Your task to perform on an android device: set the stopwatch Image 0: 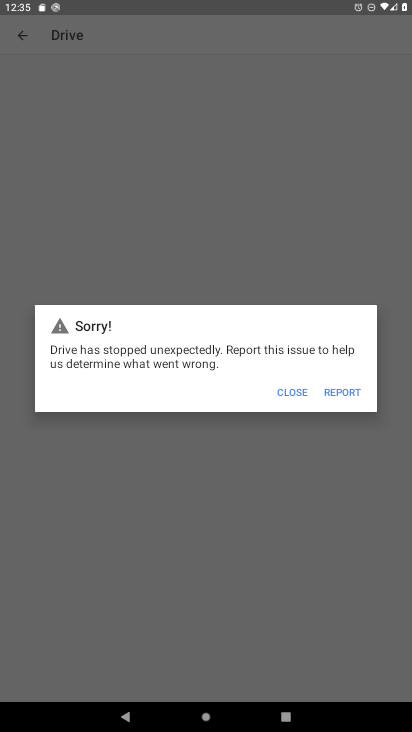
Step 0: press home button
Your task to perform on an android device: set the stopwatch Image 1: 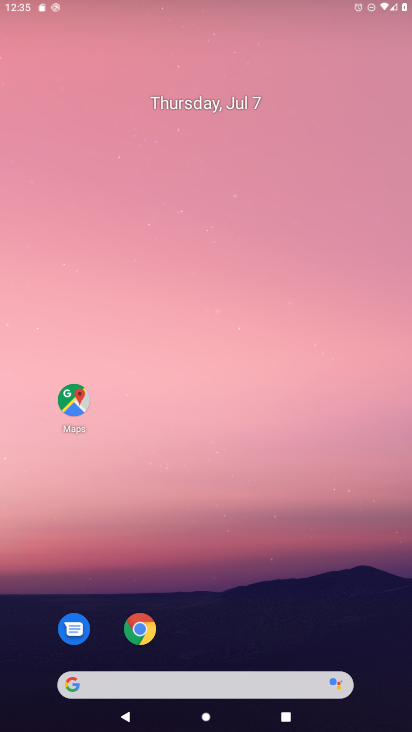
Step 1: drag from (205, 638) to (218, 53)
Your task to perform on an android device: set the stopwatch Image 2: 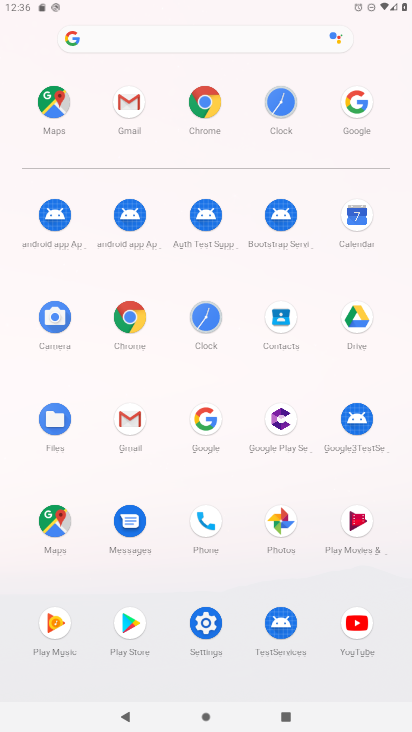
Step 2: click (295, 107)
Your task to perform on an android device: set the stopwatch Image 3: 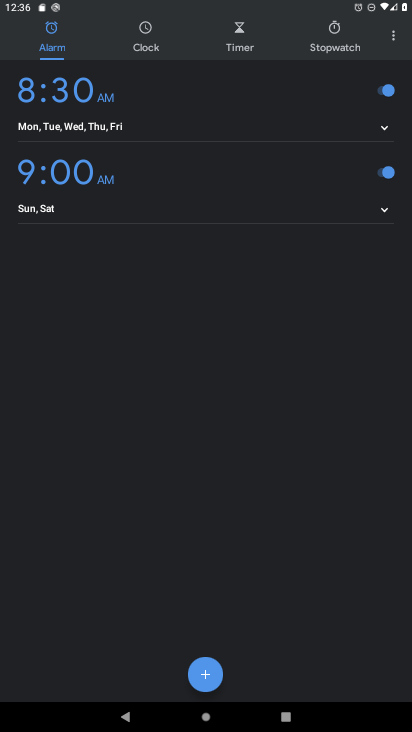
Step 3: click (322, 20)
Your task to perform on an android device: set the stopwatch Image 4: 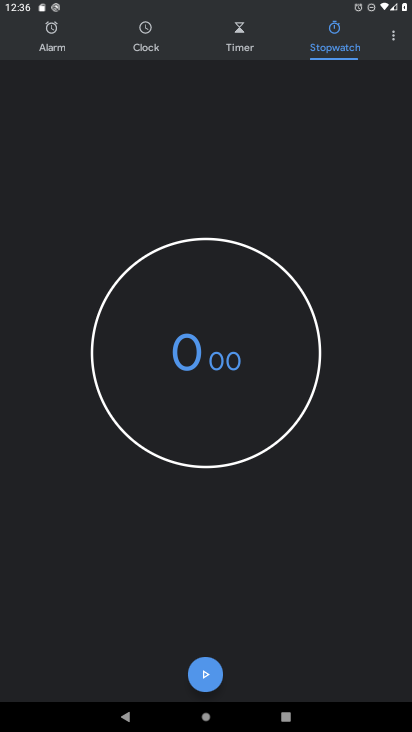
Step 4: click (206, 690)
Your task to perform on an android device: set the stopwatch Image 5: 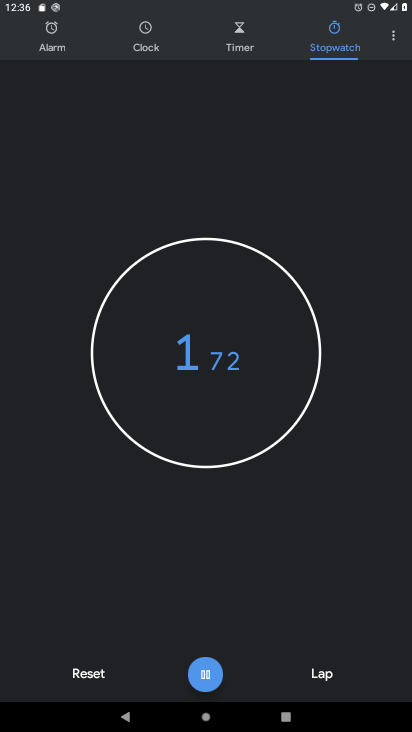
Step 5: task complete